Your task to perform on an android device: open app "YouTube Kids" (install if not already installed) Image 0: 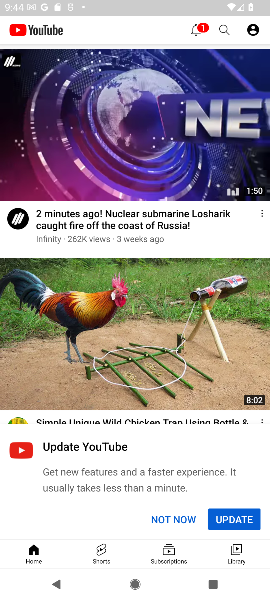
Step 0: press home button
Your task to perform on an android device: open app "YouTube Kids" (install if not already installed) Image 1: 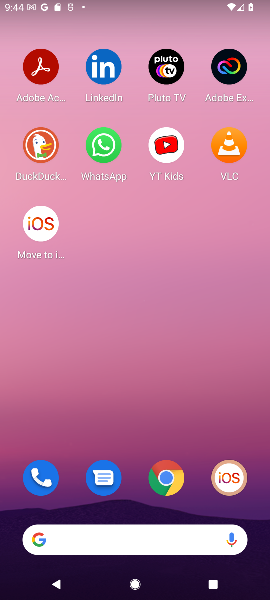
Step 1: drag from (139, 511) to (172, 26)
Your task to perform on an android device: open app "YouTube Kids" (install if not already installed) Image 2: 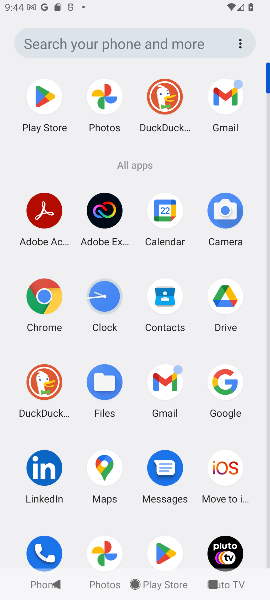
Step 2: press home button
Your task to perform on an android device: open app "YouTube Kids" (install if not already installed) Image 3: 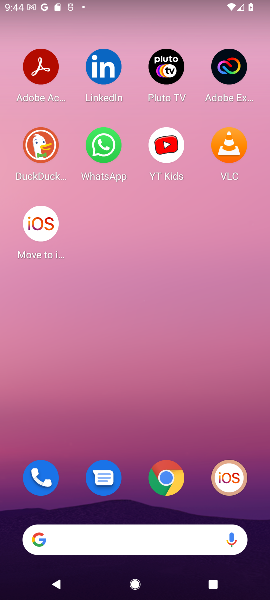
Step 3: click (159, 164)
Your task to perform on an android device: open app "YouTube Kids" (install if not already installed) Image 4: 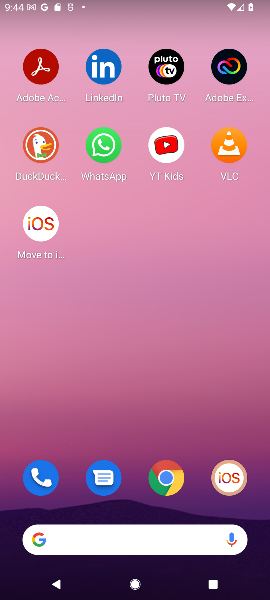
Step 4: task complete